Your task to perform on an android device: check data usage Image 0: 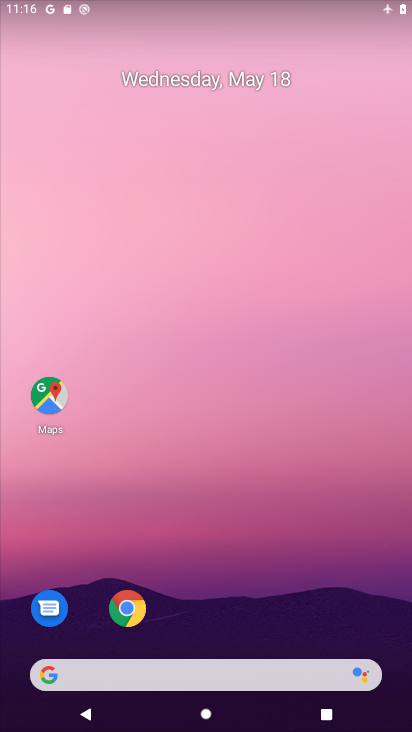
Step 0: drag from (211, 603) to (174, 205)
Your task to perform on an android device: check data usage Image 1: 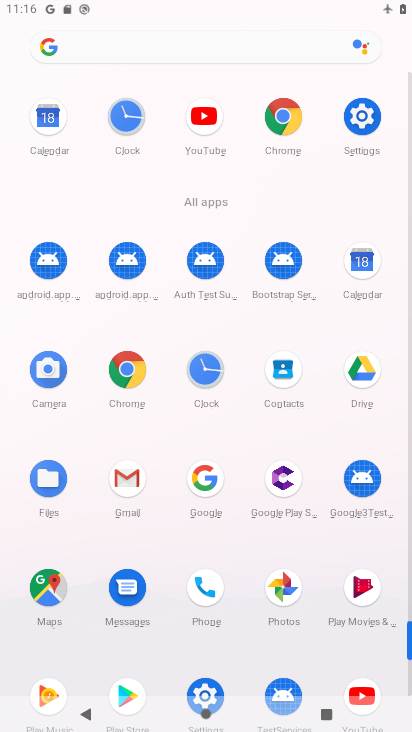
Step 1: click (365, 127)
Your task to perform on an android device: check data usage Image 2: 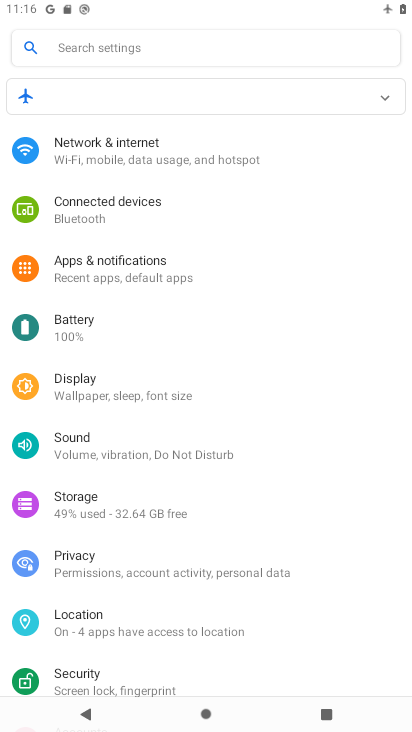
Step 2: click (104, 166)
Your task to perform on an android device: check data usage Image 3: 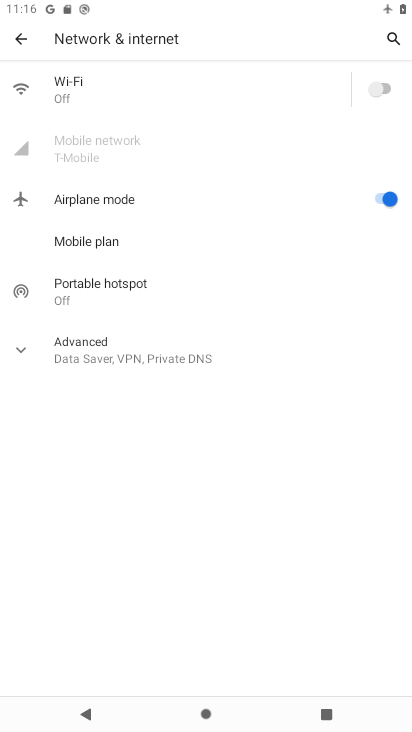
Step 3: click (67, 97)
Your task to perform on an android device: check data usage Image 4: 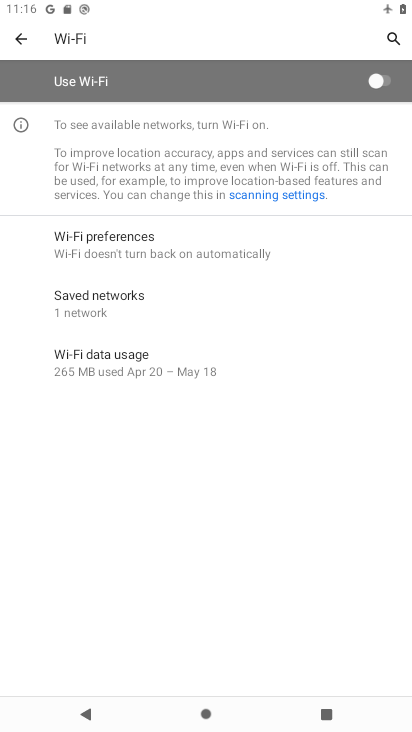
Step 4: task complete